Your task to perform on an android device: Open Reddit.com Image 0: 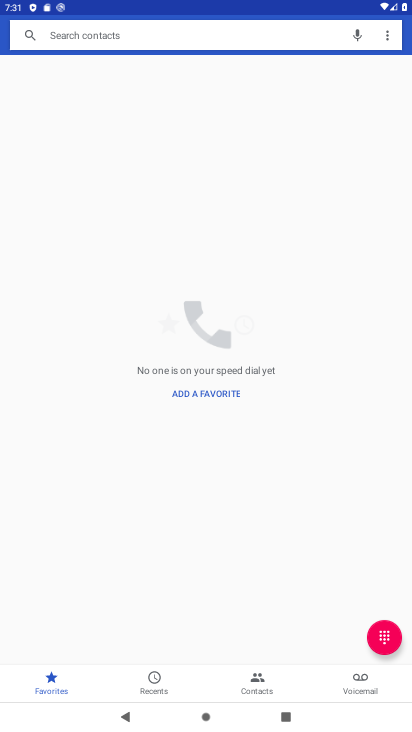
Step 0: press home button
Your task to perform on an android device: Open Reddit.com Image 1: 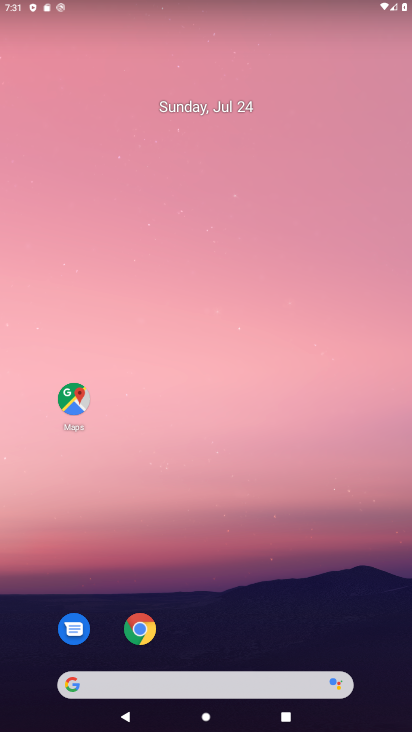
Step 1: drag from (157, 629) to (238, 3)
Your task to perform on an android device: Open Reddit.com Image 2: 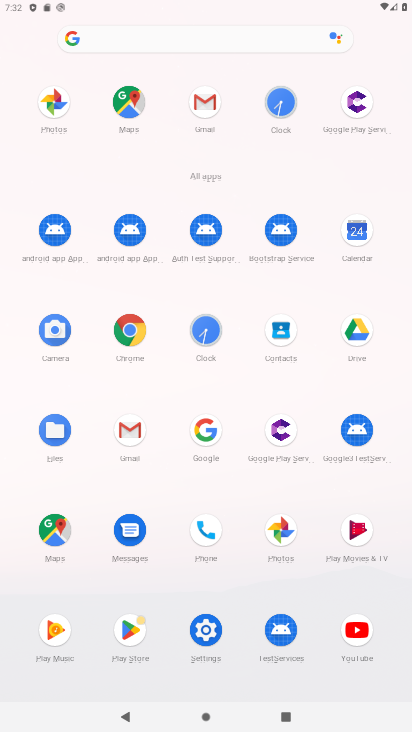
Step 2: click (146, 350)
Your task to perform on an android device: Open Reddit.com Image 3: 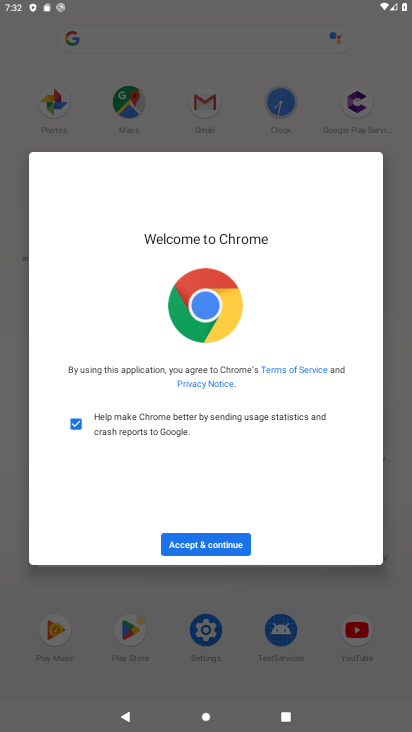
Step 3: click (222, 542)
Your task to perform on an android device: Open Reddit.com Image 4: 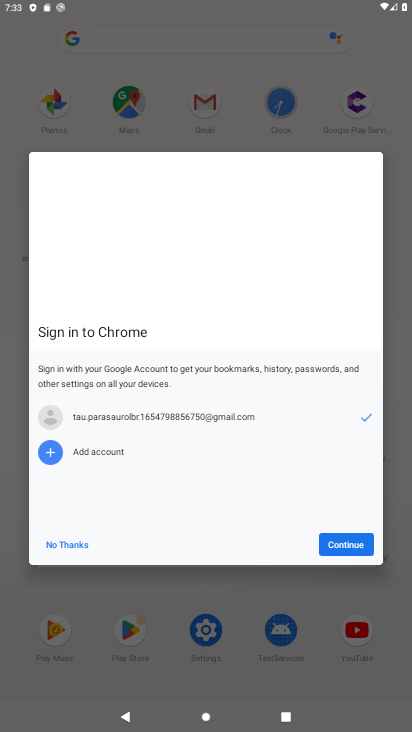
Step 4: click (354, 545)
Your task to perform on an android device: Open Reddit.com Image 5: 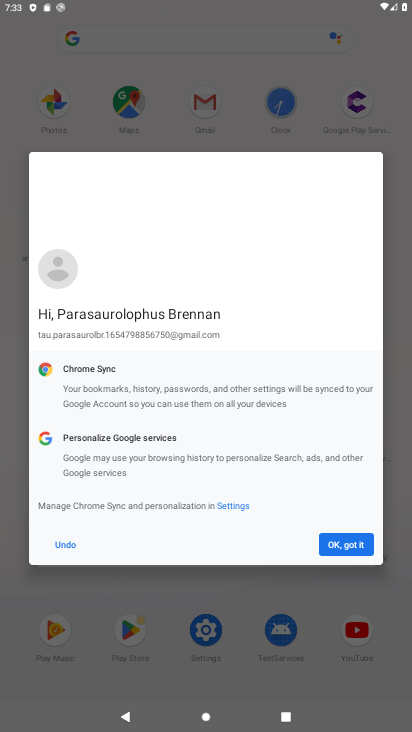
Step 5: click (358, 551)
Your task to perform on an android device: Open Reddit.com Image 6: 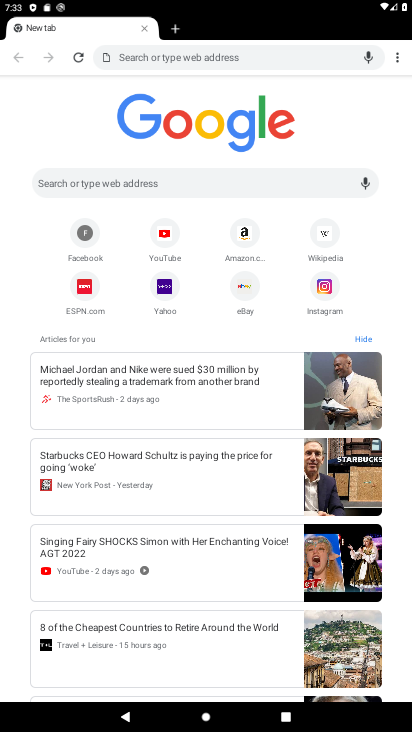
Step 6: click (295, 182)
Your task to perform on an android device: Open Reddit.com Image 7: 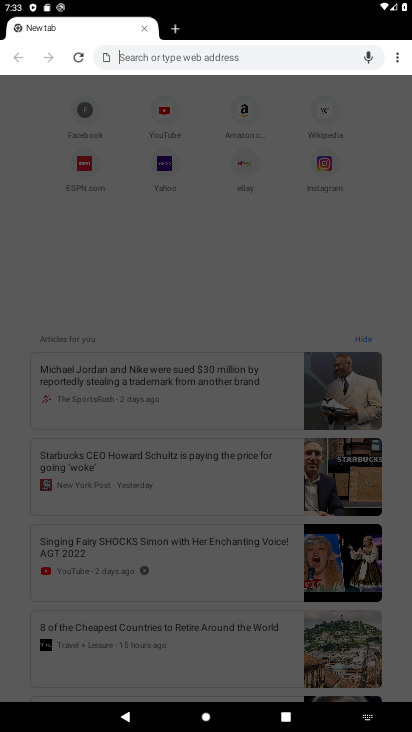
Step 7: type "reddit"
Your task to perform on an android device: Open Reddit.com Image 8: 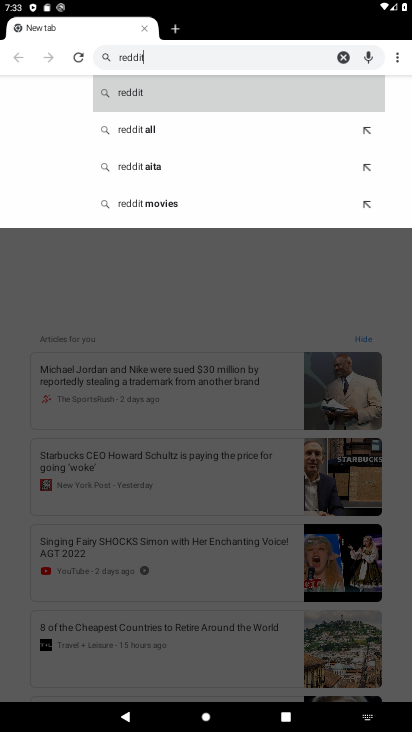
Step 8: click (193, 92)
Your task to perform on an android device: Open Reddit.com Image 9: 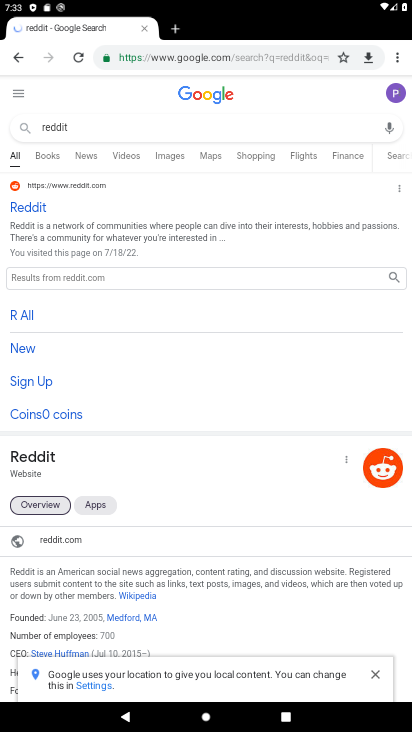
Step 9: click (31, 205)
Your task to perform on an android device: Open Reddit.com Image 10: 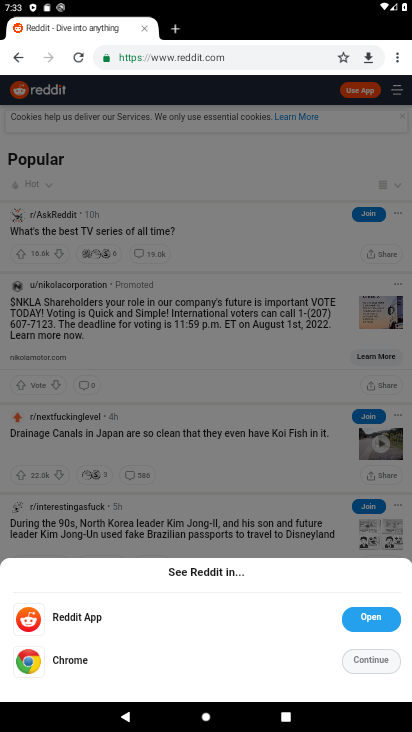
Step 10: task complete